Your task to perform on an android device: toggle notifications settings in the gmail app Image 0: 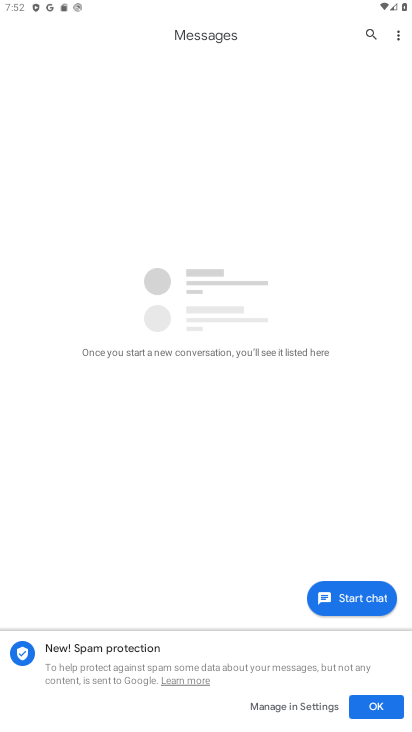
Step 0: press back button
Your task to perform on an android device: toggle notifications settings in the gmail app Image 1: 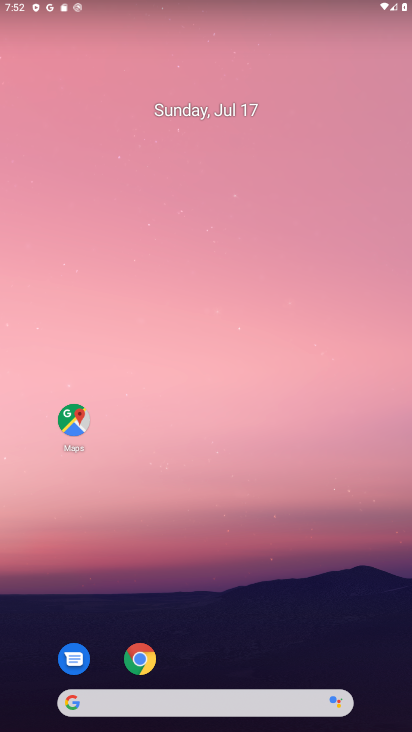
Step 1: drag from (255, 574) to (255, 128)
Your task to perform on an android device: toggle notifications settings in the gmail app Image 2: 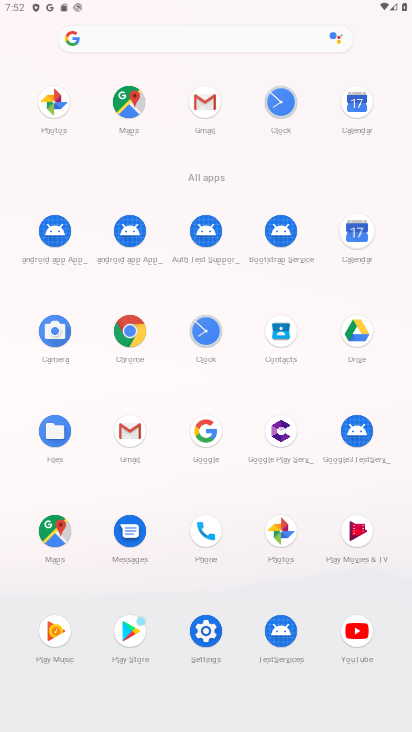
Step 2: click (129, 433)
Your task to perform on an android device: toggle notifications settings in the gmail app Image 3: 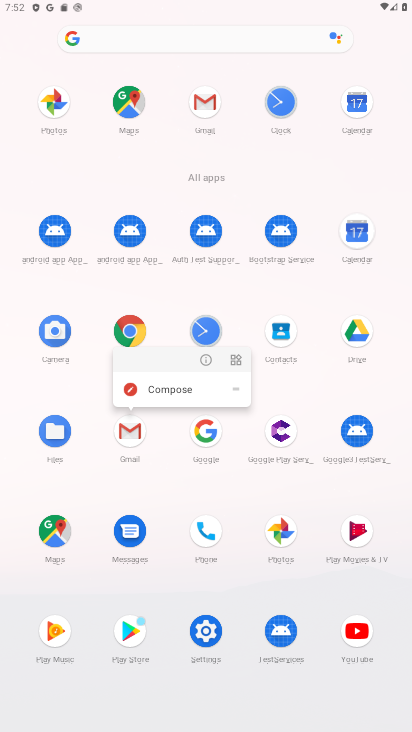
Step 3: click (130, 432)
Your task to perform on an android device: toggle notifications settings in the gmail app Image 4: 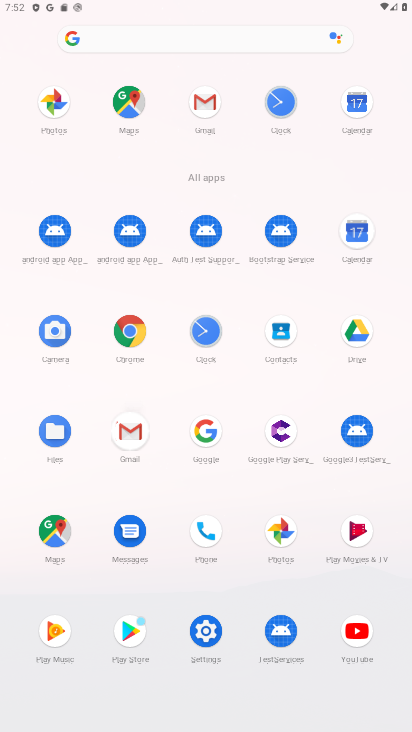
Step 4: click (131, 432)
Your task to perform on an android device: toggle notifications settings in the gmail app Image 5: 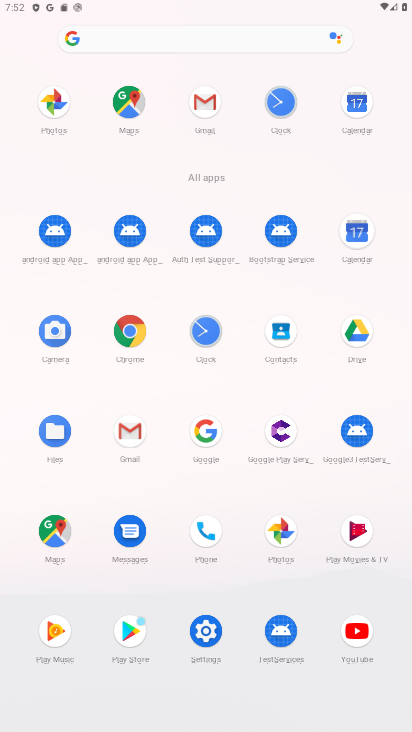
Step 5: click (131, 429)
Your task to perform on an android device: toggle notifications settings in the gmail app Image 6: 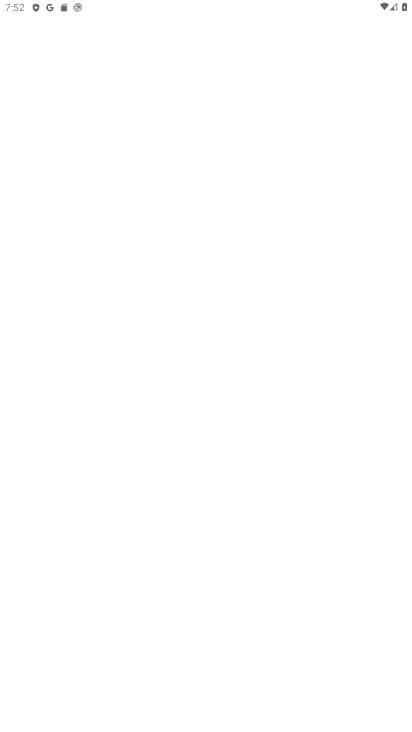
Step 6: click (123, 429)
Your task to perform on an android device: toggle notifications settings in the gmail app Image 7: 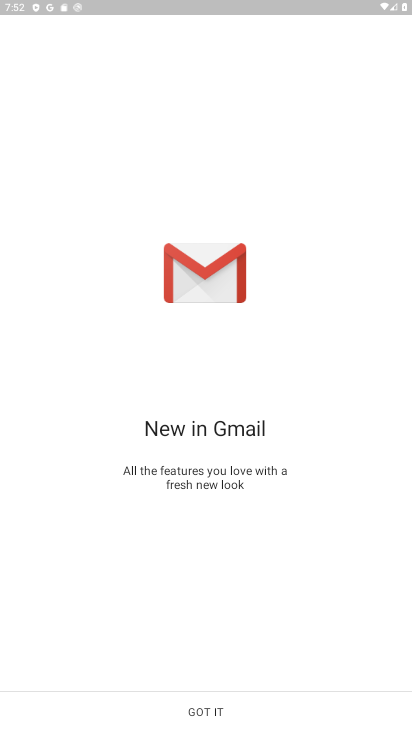
Step 7: click (217, 703)
Your task to perform on an android device: toggle notifications settings in the gmail app Image 8: 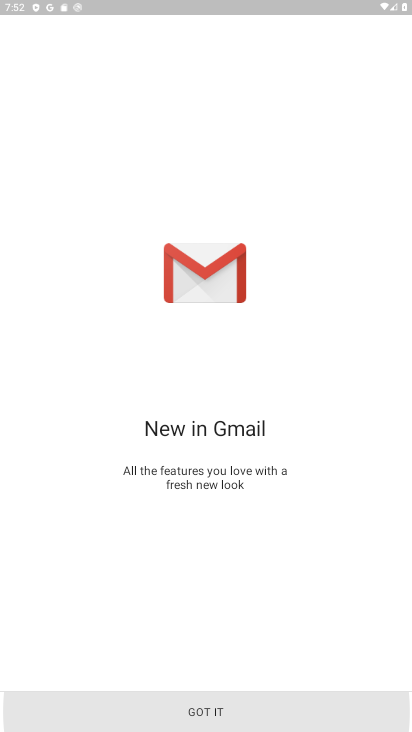
Step 8: click (217, 703)
Your task to perform on an android device: toggle notifications settings in the gmail app Image 9: 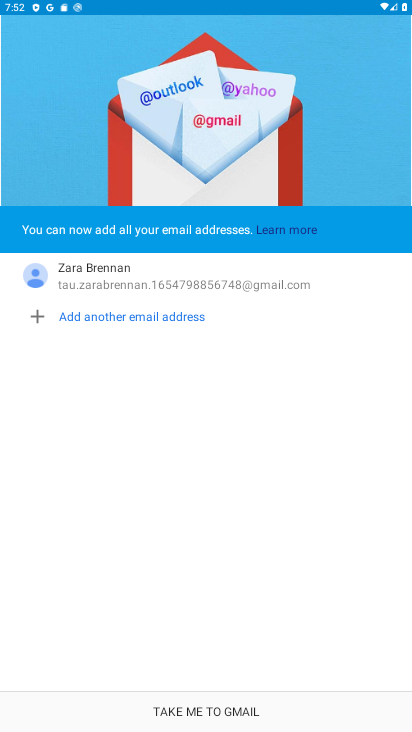
Step 9: click (202, 710)
Your task to perform on an android device: toggle notifications settings in the gmail app Image 10: 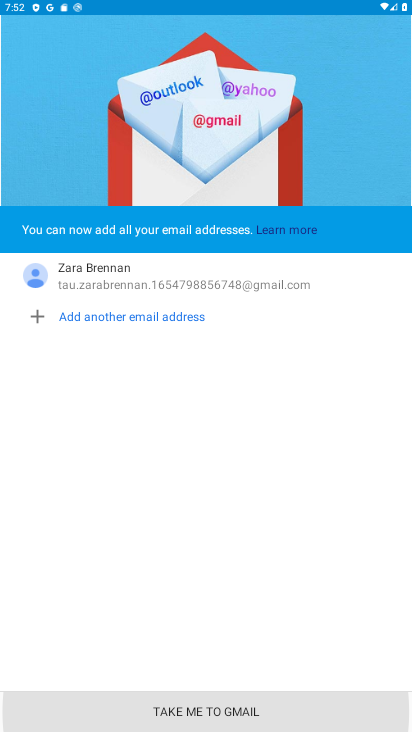
Step 10: click (201, 709)
Your task to perform on an android device: toggle notifications settings in the gmail app Image 11: 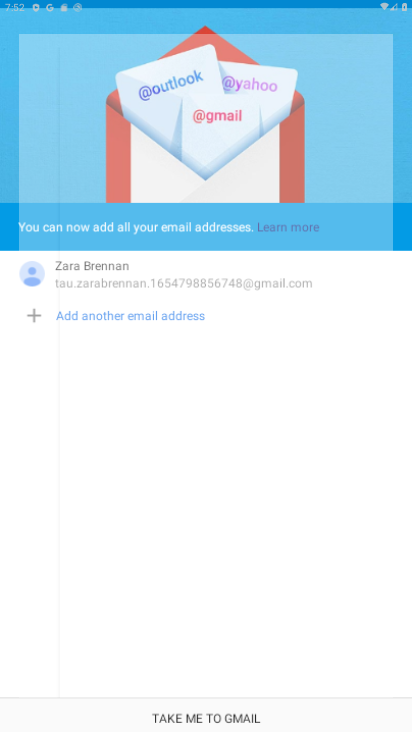
Step 11: click (199, 711)
Your task to perform on an android device: toggle notifications settings in the gmail app Image 12: 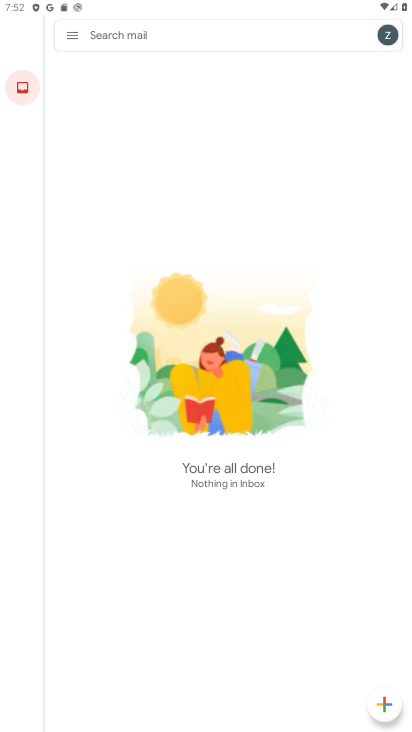
Step 12: click (64, 37)
Your task to perform on an android device: toggle notifications settings in the gmail app Image 13: 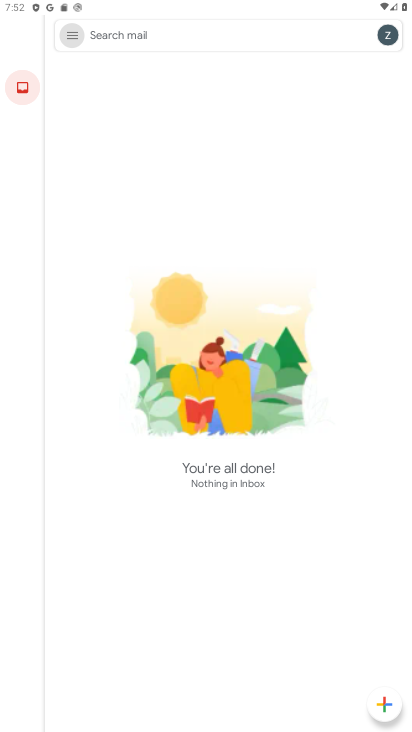
Step 13: click (66, 37)
Your task to perform on an android device: toggle notifications settings in the gmail app Image 14: 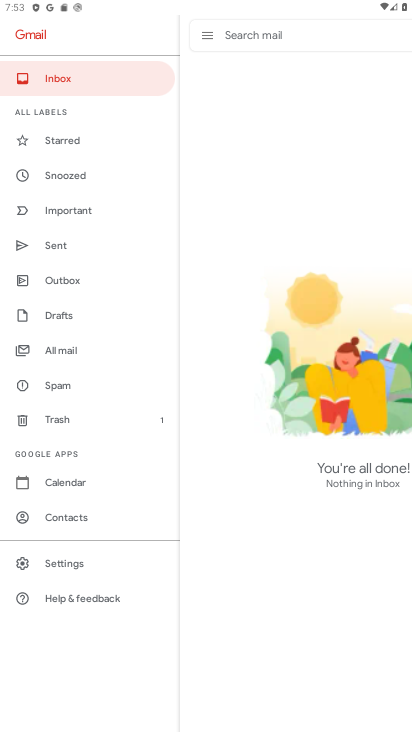
Step 14: click (83, 566)
Your task to perform on an android device: toggle notifications settings in the gmail app Image 15: 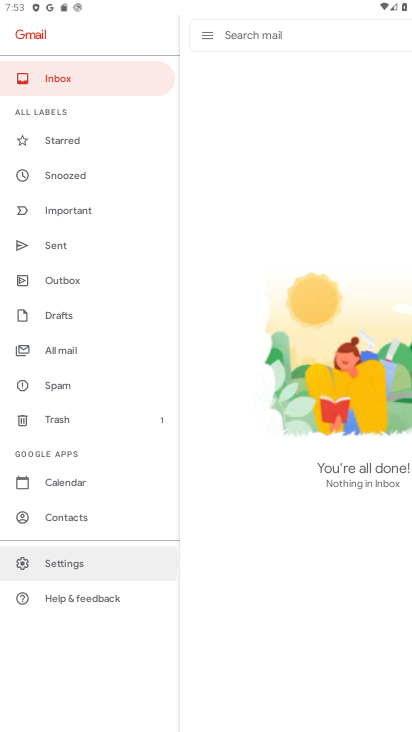
Step 15: click (78, 566)
Your task to perform on an android device: toggle notifications settings in the gmail app Image 16: 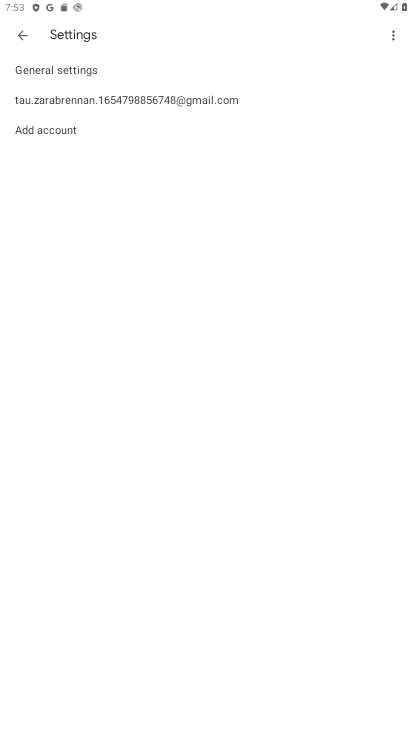
Step 16: click (125, 99)
Your task to perform on an android device: toggle notifications settings in the gmail app Image 17: 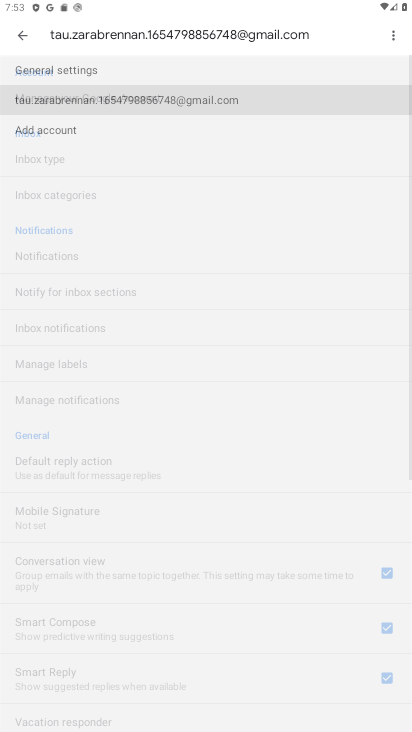
Step 17: click (125, 99)
Your task to perform on an android device: toggle notifications settings in the gmail app Image 18: 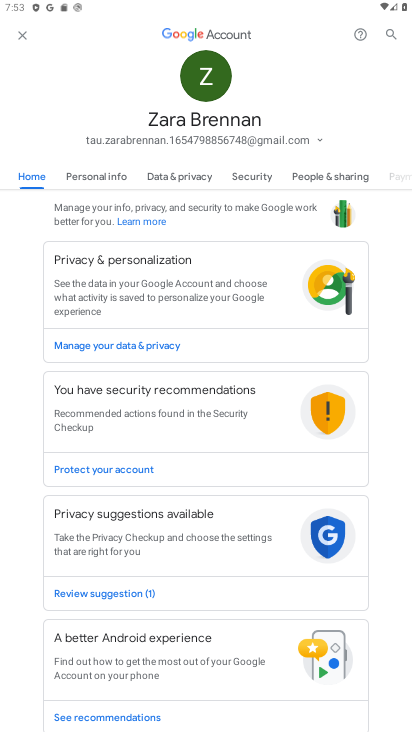
Step 18: click (21, 35)
Your task to perform on an android device: toggle notifications settings in the gmail app Image 19: 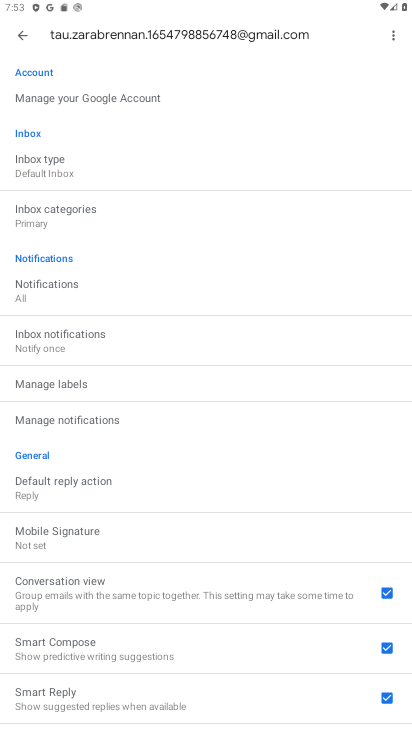
Step 19: click (51, 284)
Your task to perform on an android device: toggle notifications settings in the gmail app Image 20: 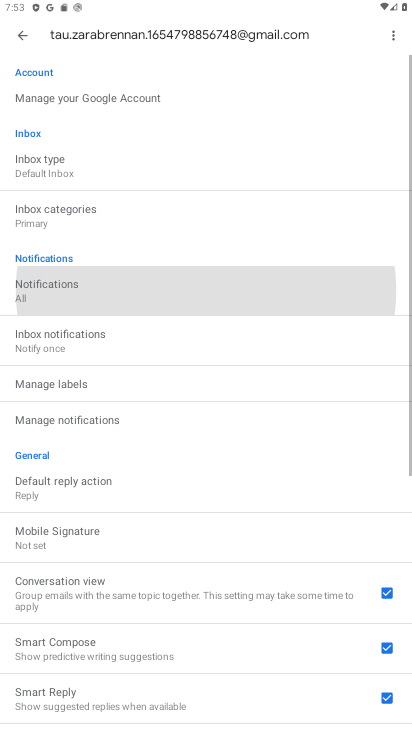
Step 20: click (51, 284)
Your task to perform on an android device: toggle notifications settings in the gmail app Image 21: 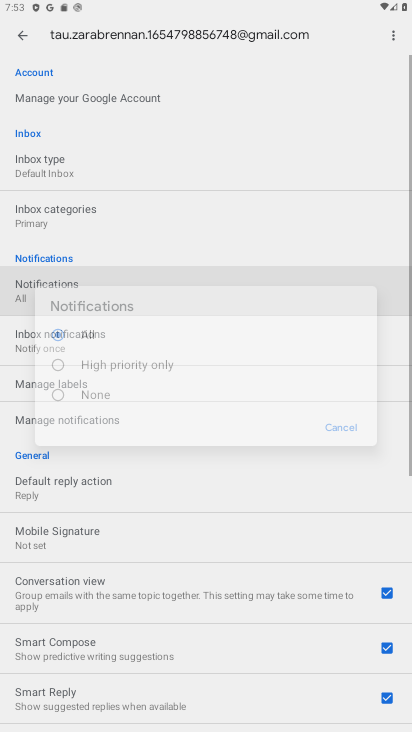
Step 21: click (51, 285)
Your task to perform on an android device: toggle notifications settings in the gmail app Image 22: 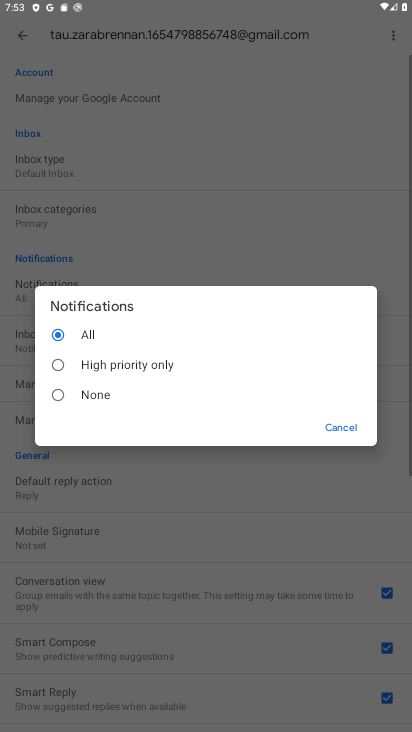
Step 22: click (59, 361)
Your task to perform on an android device: toggle notifications settings in the gmail app Image 23: 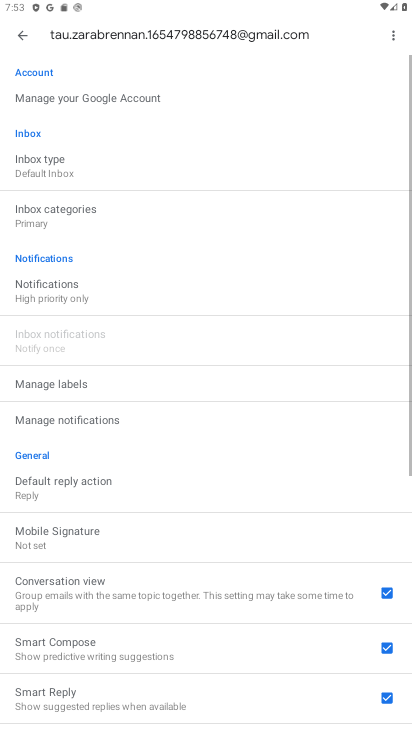
Step 23: task complete